Your task to perform on an android device: When is my next meeting? Image 0: 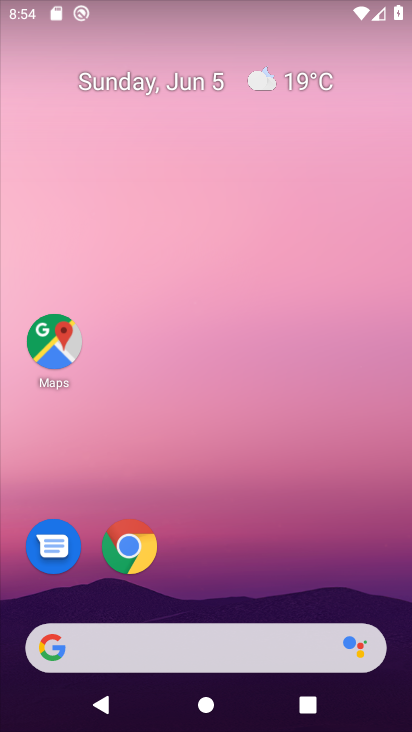
Step 0: drag from (262, 515) to (257, 245)
Your task to perform on an android device: When is my next meeting? Image 1: 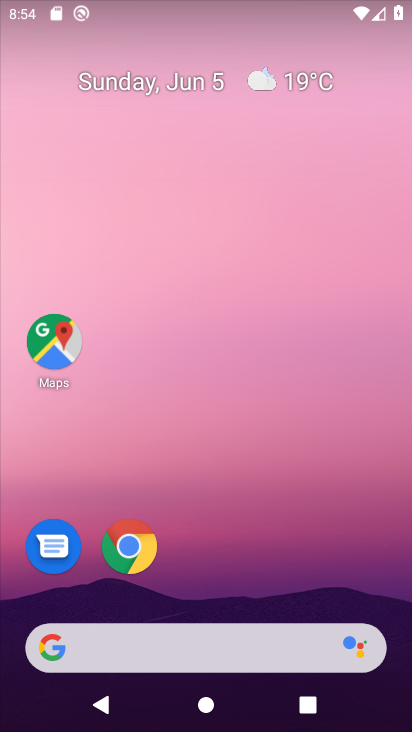
Step 1: drag from (386, 568) to (273, 222)
Your task to perform on an android device: When is my next meeting? Image 2: 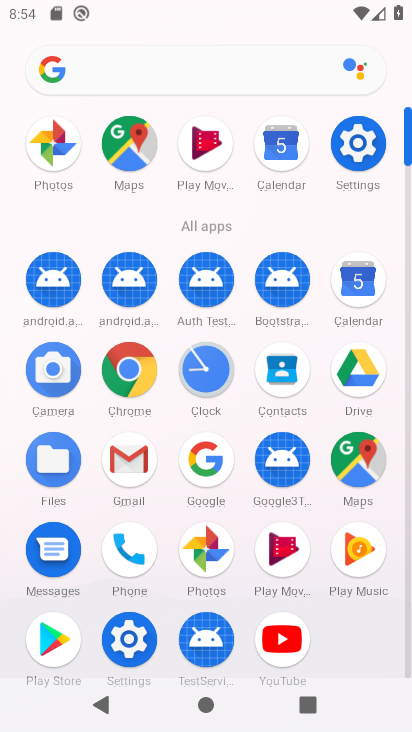
Step 2: click (366, 267)
Your task to perform on an android device: When is my next meeting? Image 3: 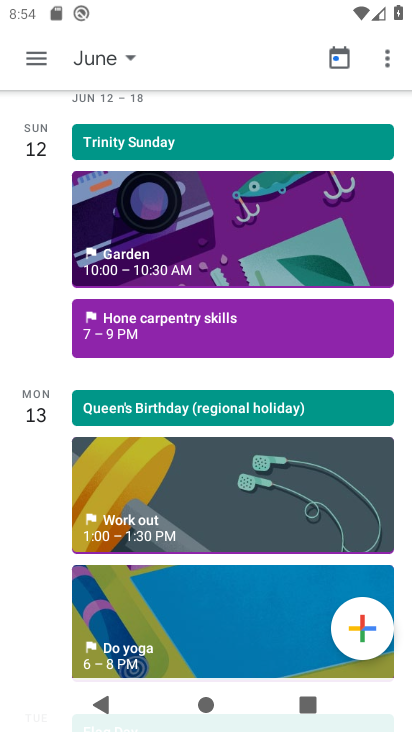
Step 3: click (137, 50)
Your task to perform on an android device: When is my next meeting? Image 4: 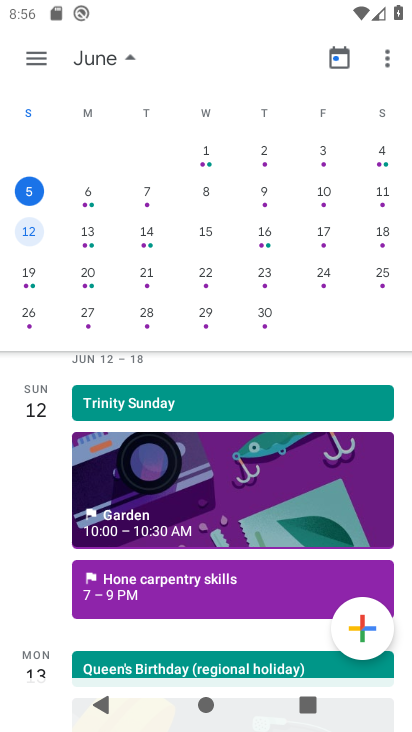
Step 4: click (86, 193)
Your task to perform on an android device: When is my next meeting? Image 5: 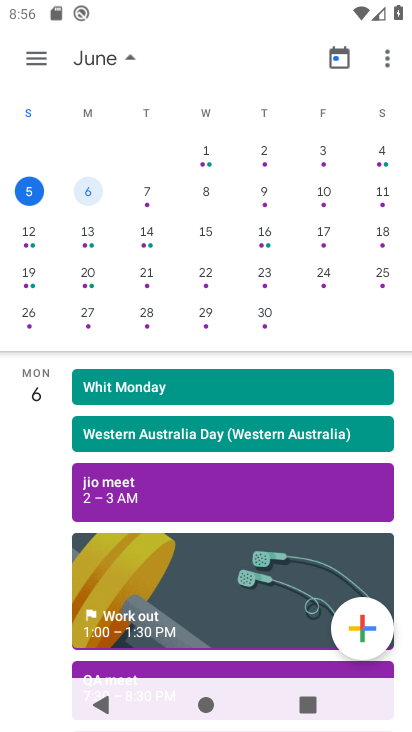
Step 5: click (139, 52)
Your task to perform on an android device: When is my next meeting? Image 6: 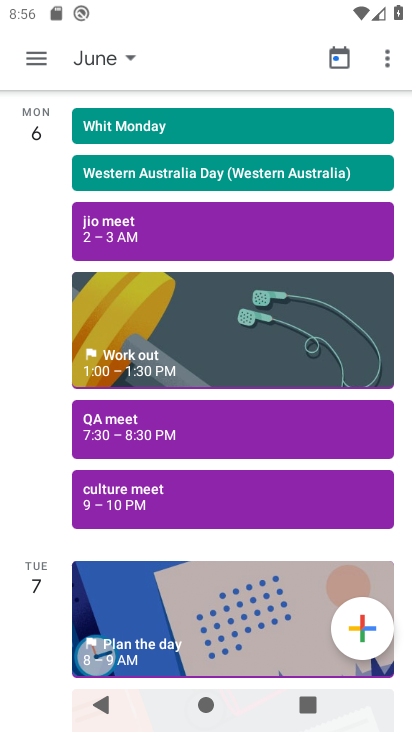
Step 6: task complete